Your task to perform on an android device: Open the Play Movies app and select the watchlist tab. Image 0: 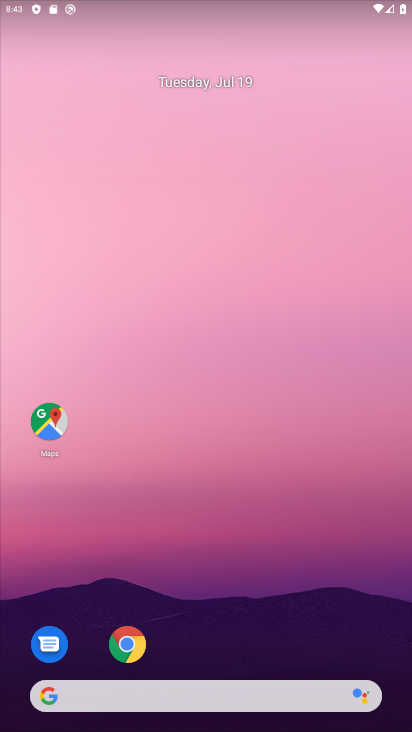
Step 0: drag from (279, 657) to (260, 201)
Your task to perform on an android device: Open the Play Movies app and select the watchlist tab. Image 1: 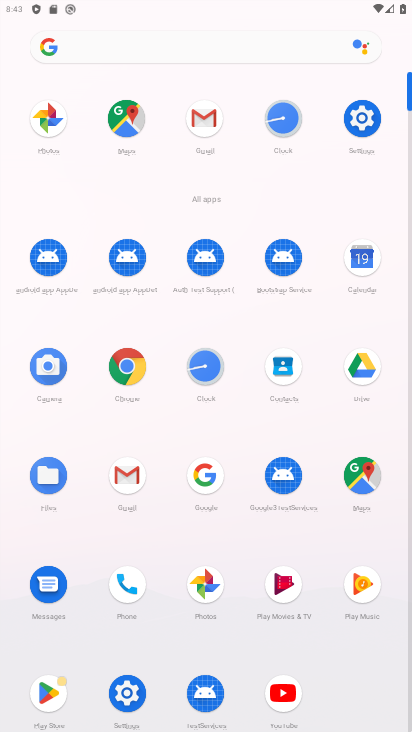
Step 1: click (282, 580)
Your task to perform on an android device: Open the Play Movies app and select the watchlist tab. Image 2: 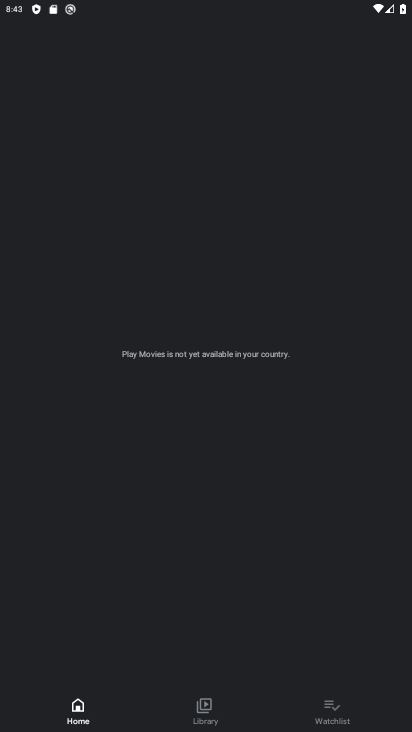
Step 2: click (335, 711)
Your task to perform on an android device: Open the Play Movies app and select the watchlist tab. Image 3: 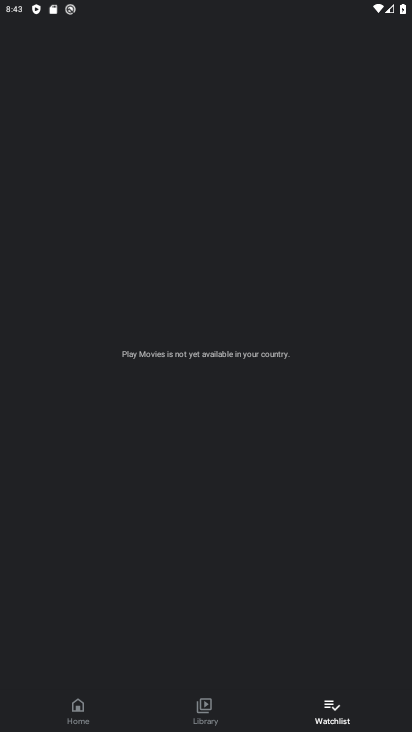
Step 3: task complete